Your task to perform on an android device: turn pop-ups on in chrome Image 0: 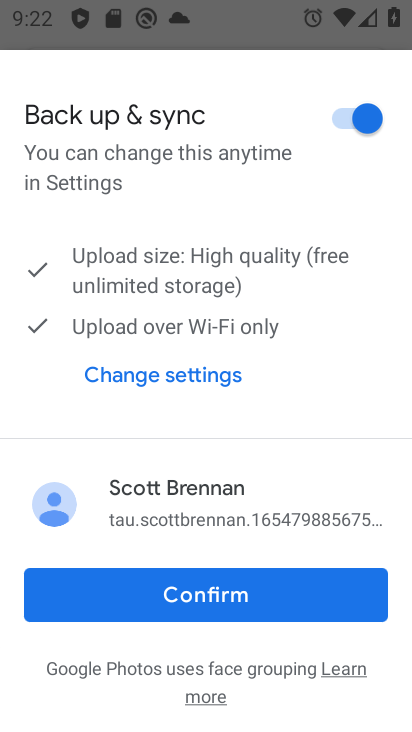
Step 0: press home button
Your task to perform on an android device: turn pop-ups on in chrome Image 1: 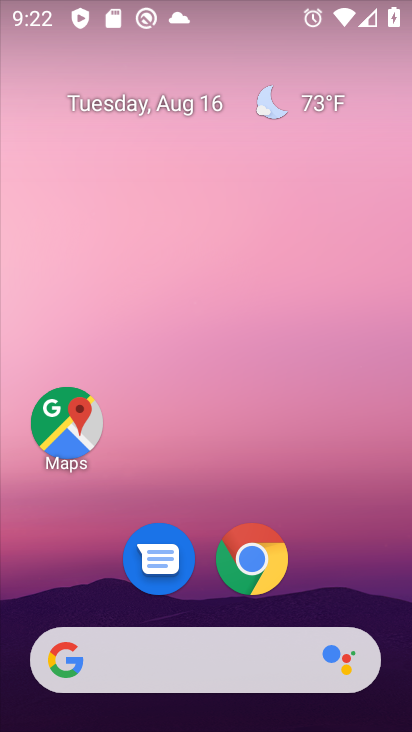
Step 1: click (254, 562)
Your task to perform on an android device: turn pop-ups on in chrome Image 2: 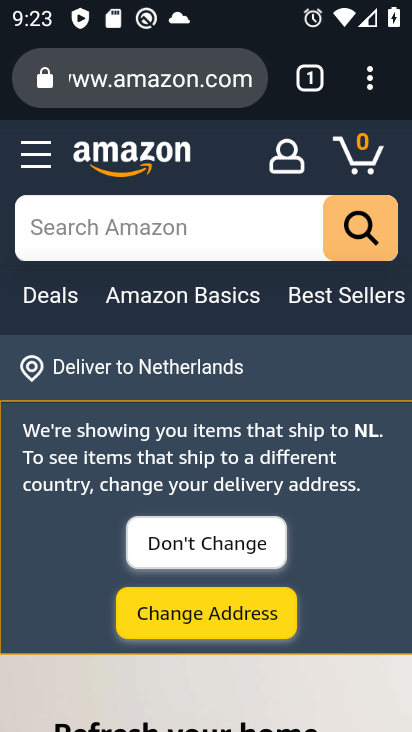
Step 2: click (381, 84)
Your task to perform on an android device: turn pop-ups on in chrome Image 3: 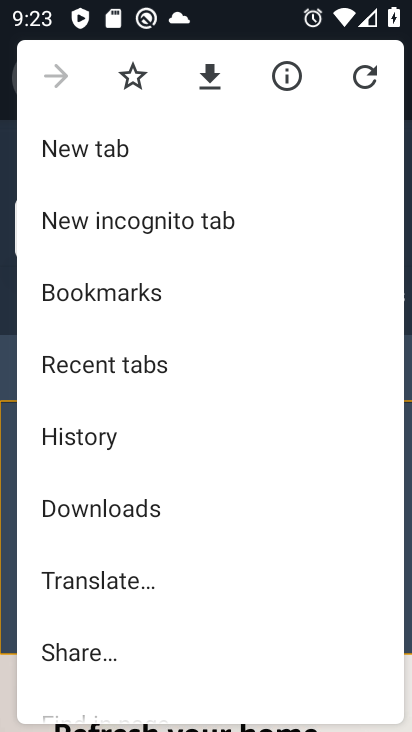
Step 3: drag from (112, 477) to (163, 374)
Your task to perform on an android device: turn pop-ups on in chrome Image 4: 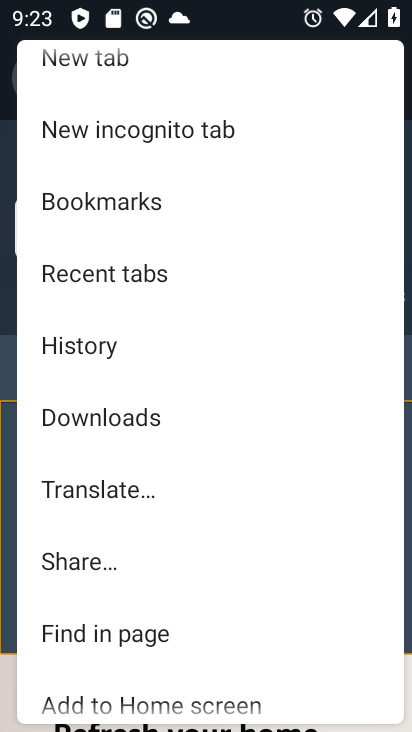
Step 4: drag from (106, 508) to (165, 399)
Your task to perform on an android device: turn pop-ups on in chrome Image 5: 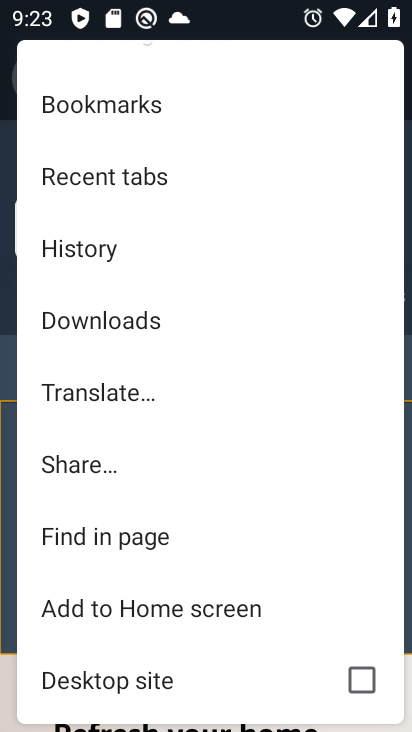
Step 5: drag from (133, 492) to (193, 395)
Your task to perform on an android device: turn pop-ups on in chrome Image 6: 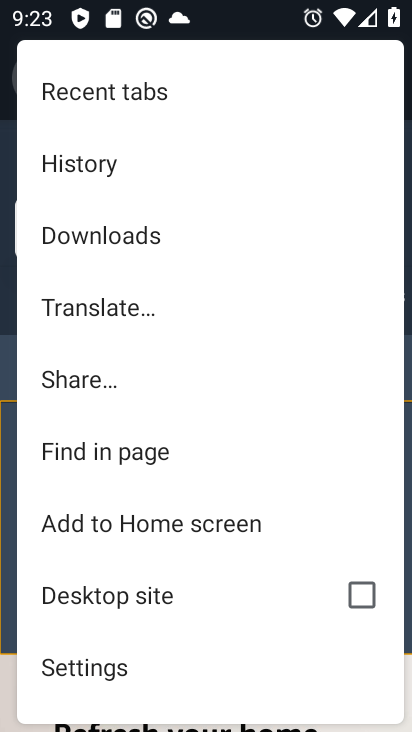
Step 6: drag from (136, 539) to (189, 398)
Your task to perform on an android device: turn pop-ups on in chrome Image 7: 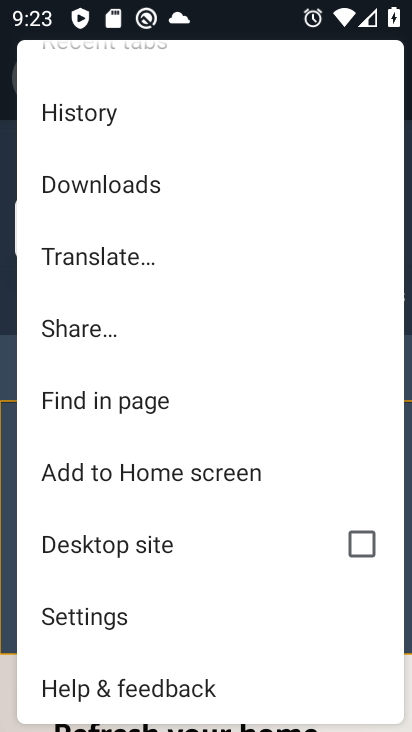
Step 7: click (102, 620)
Your task to perform on an android device: turn pop-ups on in chrome Image 8: 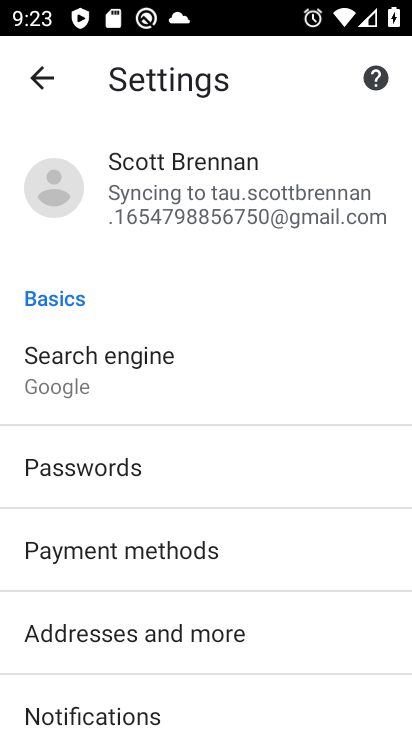
Step 8: drag from (118, 671) to (217, 543)
Your task to perform on an android device: turn pop-ups on in chrome Image 9: 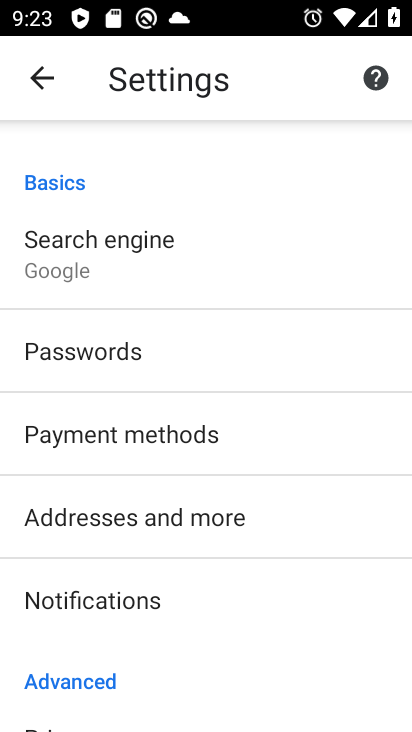
Step 9: drag from (169, 643) to (243, 510)
Your task to perform on an android device: turn pop-ups on in chrome Image 10: 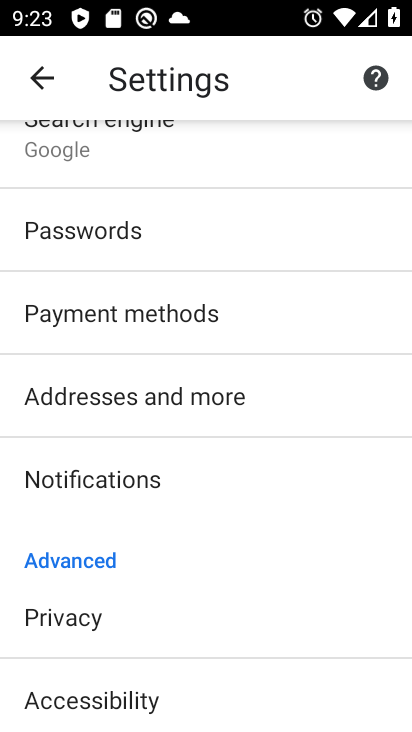
Step 10: drag from (140, 603) to (216, 468)
Your task to perform on an android device: turn pop-ups on in chrome Image 11: 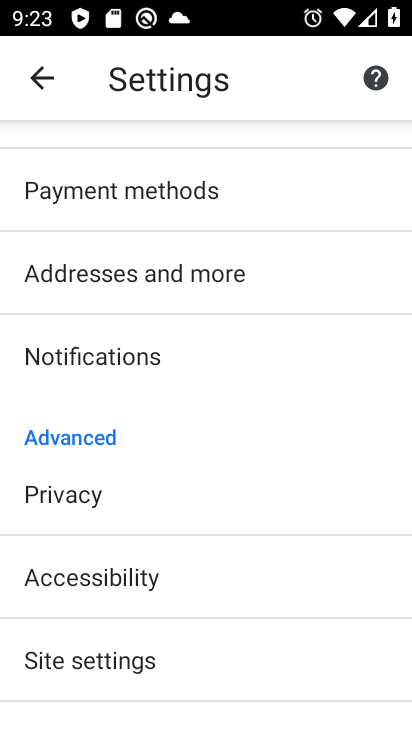
Step 11: drag from (165, 652) to (224, 551)
Your task to perform on an android device: turn pop-ups on in chrome Image 12: 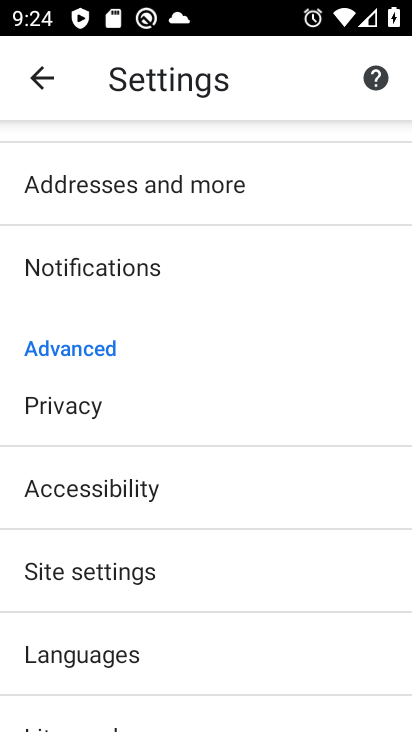
Step 12: click (107, 576)
Your task to perform on an android device: turn pop-ups on in chrome Image 13: 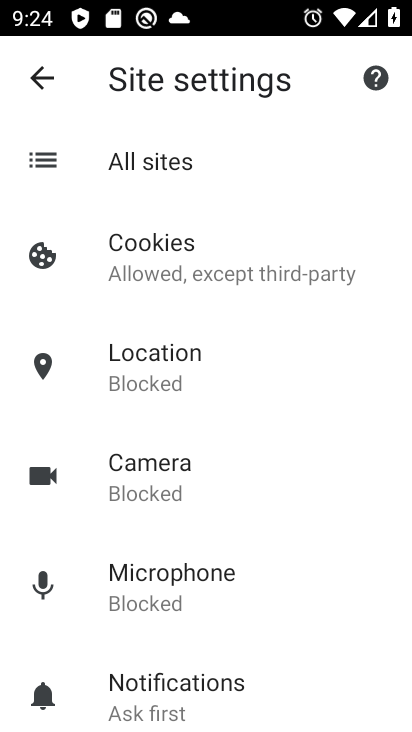
Step 13: drag from (194, 610) to (227, 475)
Your task to perform on an android device: turn pop-ups on in chrome Image 14: 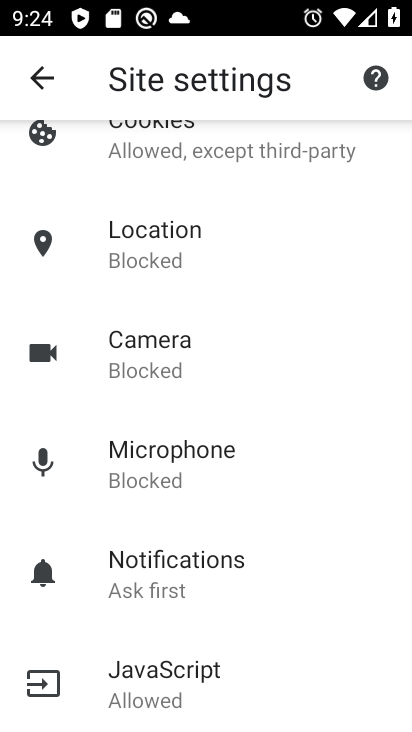
Step 14: drag from (194, 585) to (234, 445)
Your task to perform on an android device: turn pop-ups on in chrome Image 15: 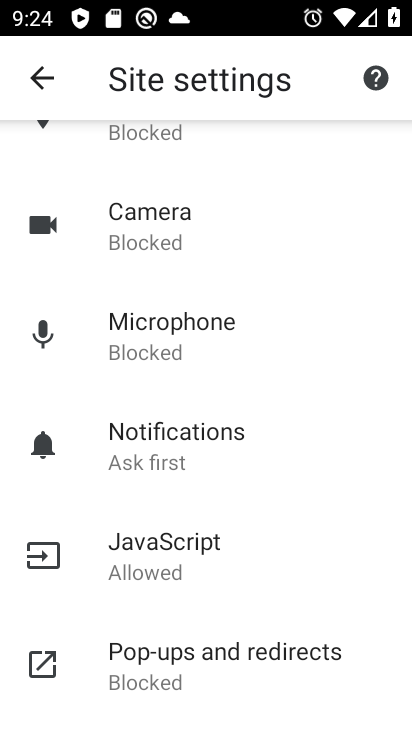
Step 15: drag from (172, 595) to (264, 467)
Your task to perform on an android device: turn pop-ups on in chrome Image 16: 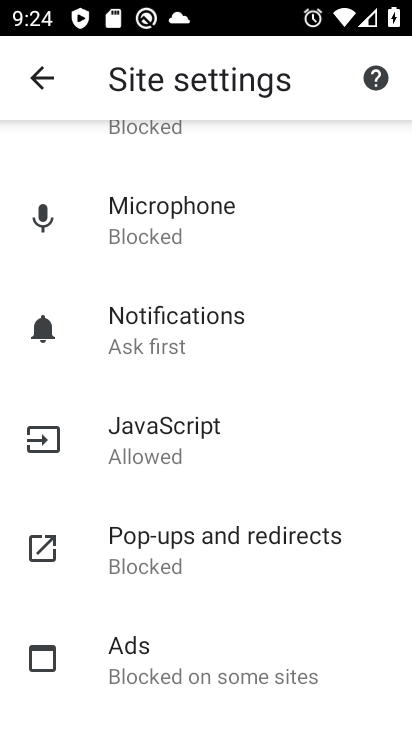
Step 16: click (234, 535)
Your task to perform on an android device: turn pop-ups on in chrome Image 17: 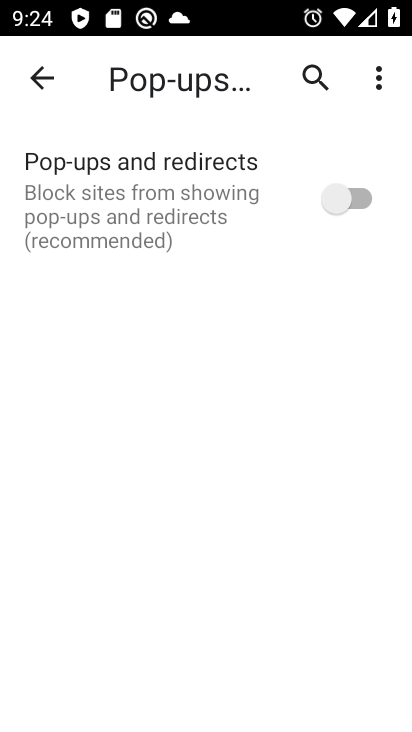
Step 17: click (352, 208)
Your task to perform on an android device: turn pop-ups on in chrome Image 18: 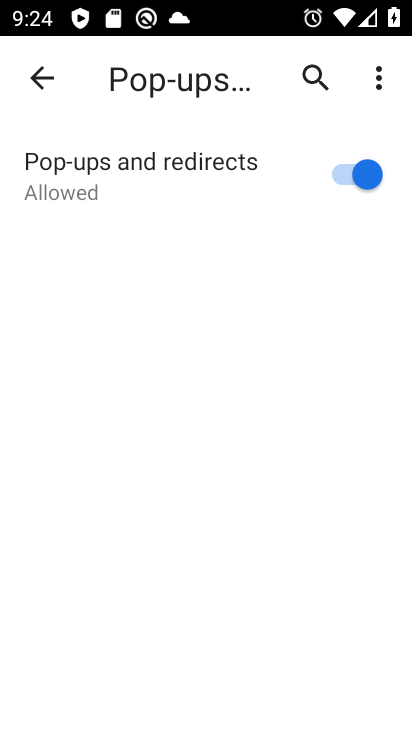
Step 18: task complete